Your task to perform on an android device: Open wifi settings Image 0: 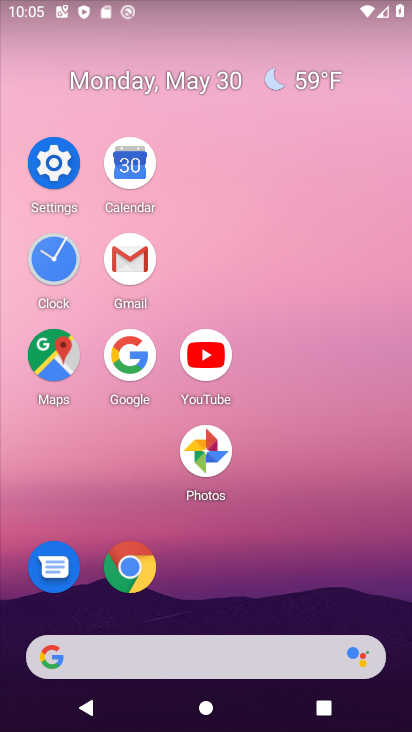
Step 0: click (23, 155)
Your task to perform on an android device: Open wifi settings Image 1: 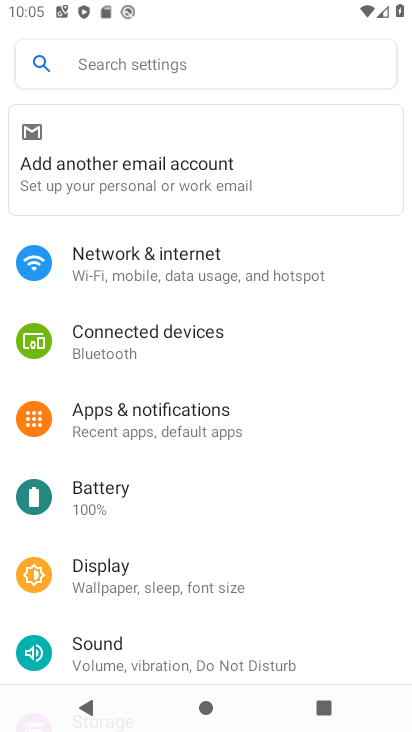
Step 1: click (126, 255)
Your task to perform on an android device: Open wifi settings Image 2: 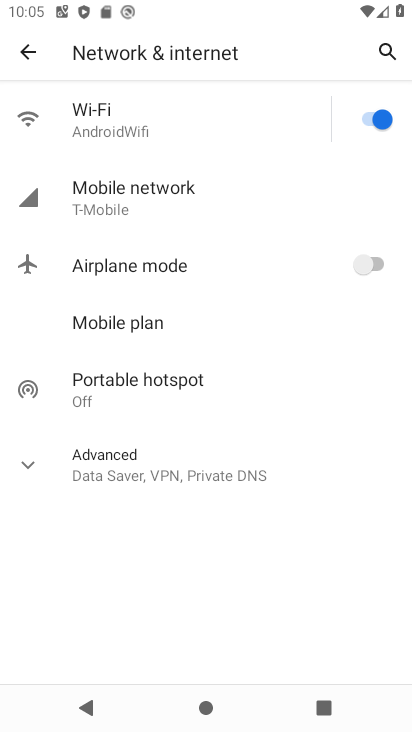
Step 2: click (109, 146)
Your task to perform on an android device: Open wifi settings Image 3: 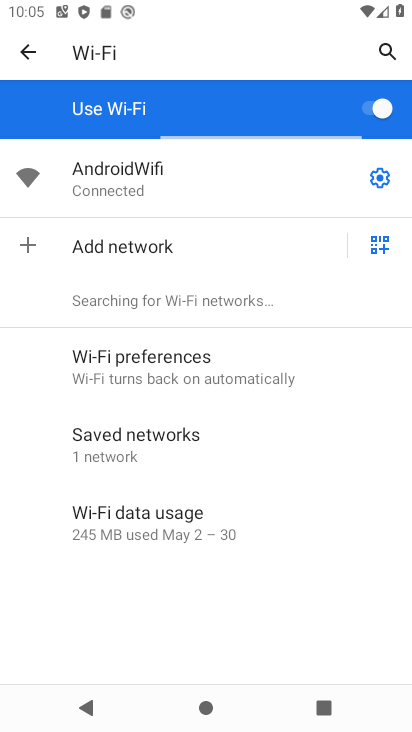
Step 3: click (383, 174)
Your task to perform on an android device: Open wifi settings Image 4: 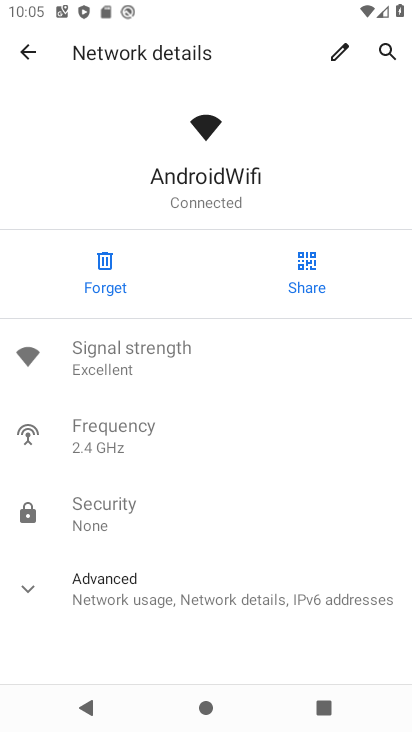
Step 4: task complete